Your task to perform on an android device: see sites visited before in the chrome app Image 0: 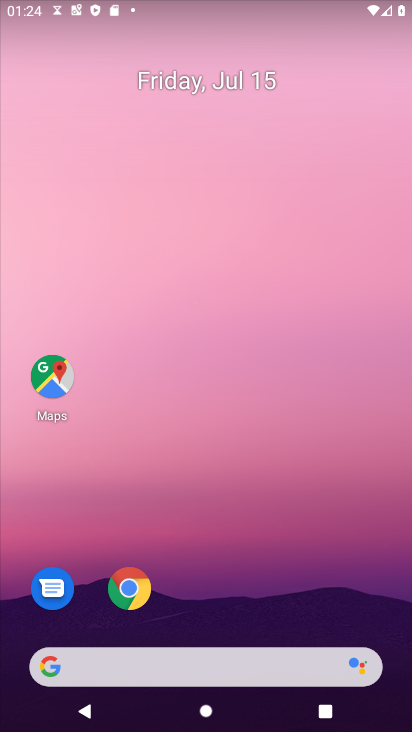
Step 0: click (126, 594)
Your task to perform on an android device: see sites visited before in the chrome app Image 1: 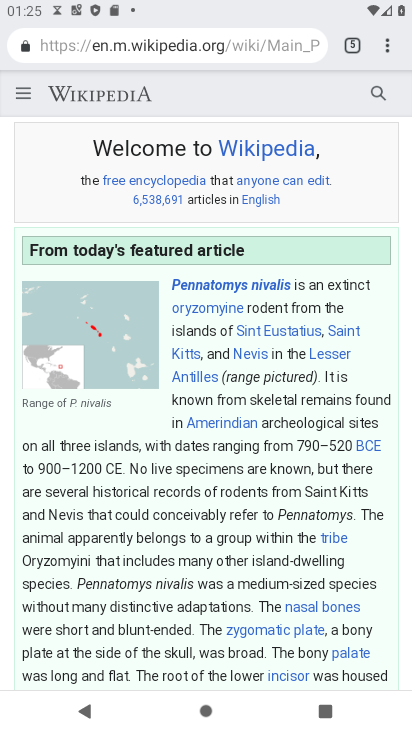
Step 1: task complete